Your task to perform on an android device: allow notifications from all sites in the chrome app Image 0: 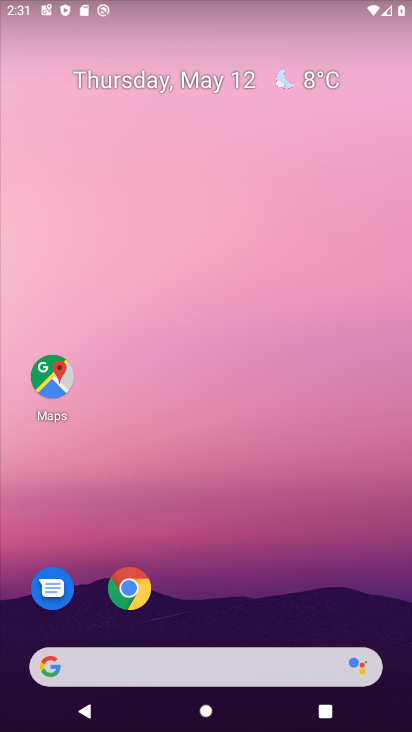
Step 0: drag from (241, 537) to (235, 7)
Your task to perform on an android device: allow notifications from all sites in the chrome app Image 1: 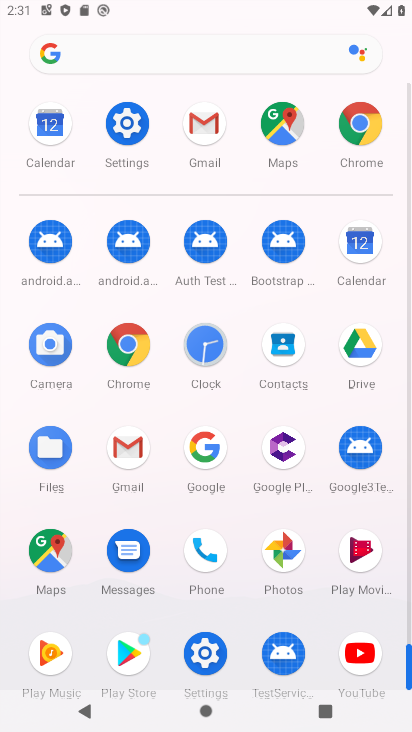
Step 1: click (126, 340)
Your task to perform on an android device: allow notifications from all sites in the chrome app Image 2: 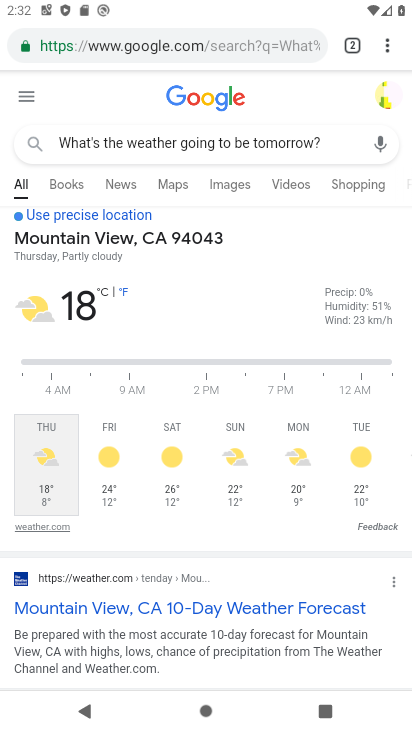
Step 2: drag from (386, 48) to (226, 501)
Your task to perform on an android device: allow notifications from all sites in the chrome app Image 3: 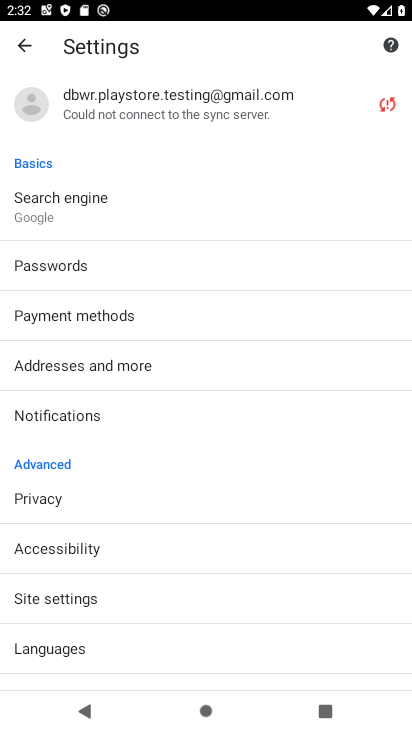
Step 3: drag from (244, 598) to (259, 348)
Your task to perform on an android device: allow notifications from all sites in the chrome app Image 4: 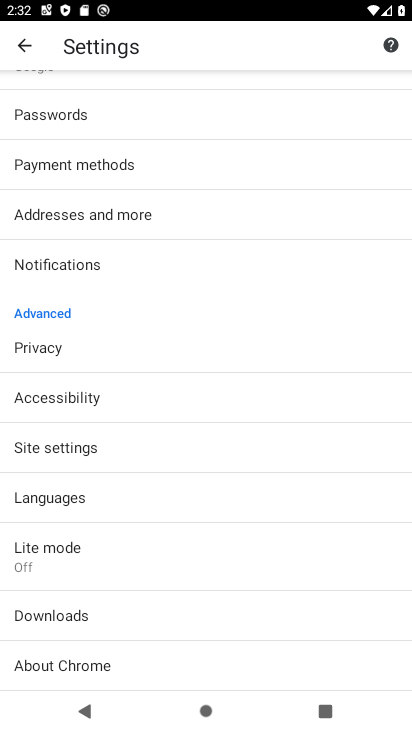
Step 4: click (89, 440)
Your task to perform on an android device: allow notifications from all sites in the chrome app Image 5: 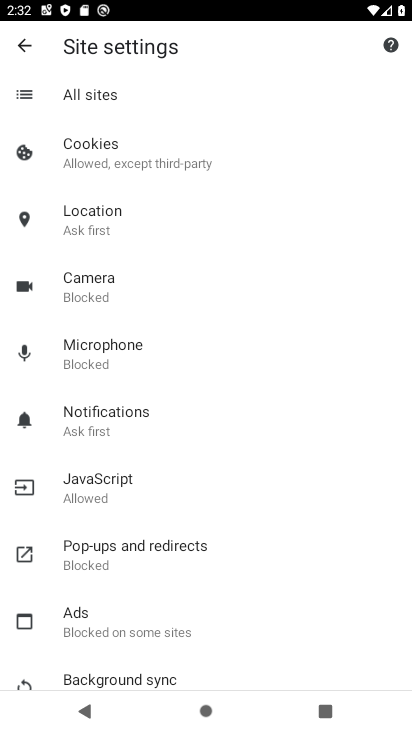
Step 5: click (115, 429)
Your task to perform on an android device: allow notifications from all sites in the chrome app Image 6: 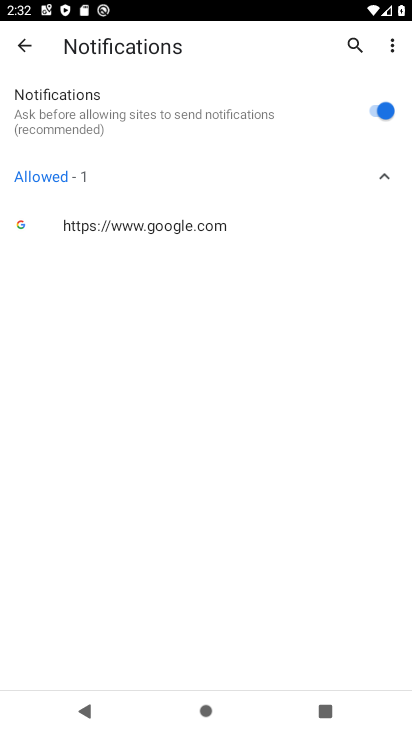
Step 6: task complete